Your task to perform on an android device: Go to Google Image 0: 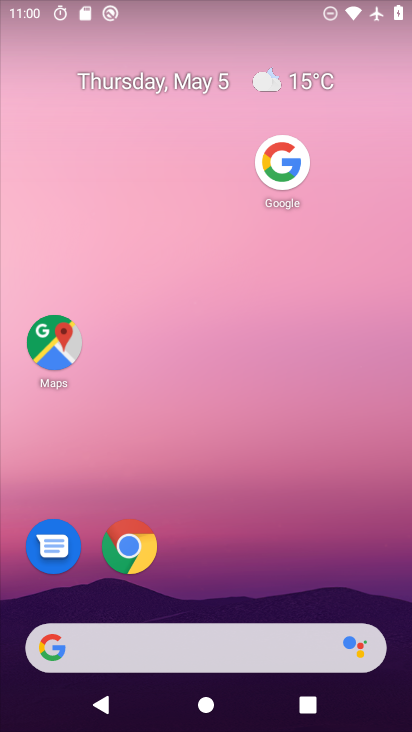
Step 0: drag from (204, 642) to (397, 45)
Your task to perform on an android device: Go to Google Image 1: 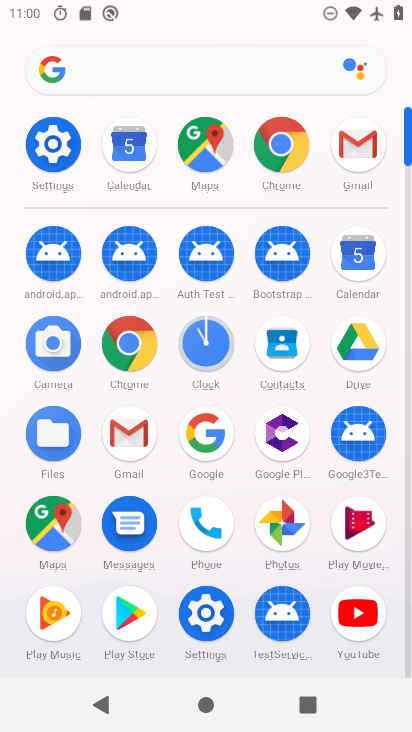
Step 1: click (215, 440)
Your task to perform on an android device: Go to Google Image 2: 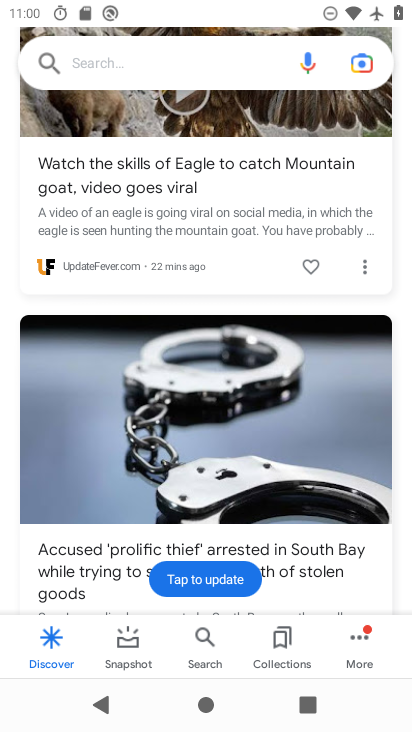
Step 2: task complete